Your task to perform on an android device: Go to notification settings Image 0: 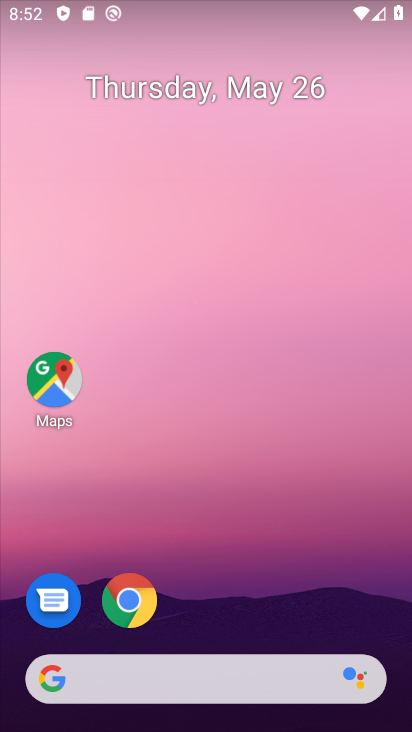
Step 0: drag from (196, 632) to (285, 13)
Your task to perform on an android device: Go to notification settings Image 1: 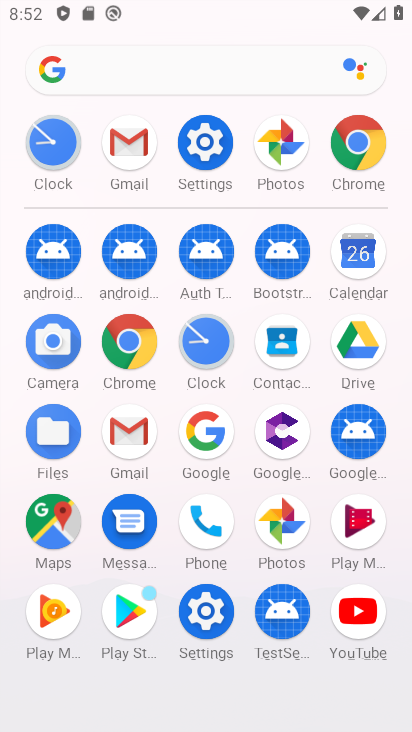
Step 1: click (199, 155)
Your task to perform on an android device: Go to notification settings Image 2: 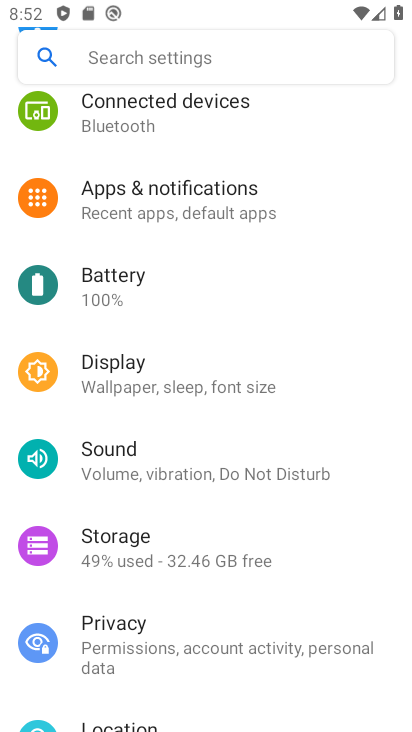
Step 2: click (187, 231)
Your task to perform on an android device: Go to notification settings Image 3: 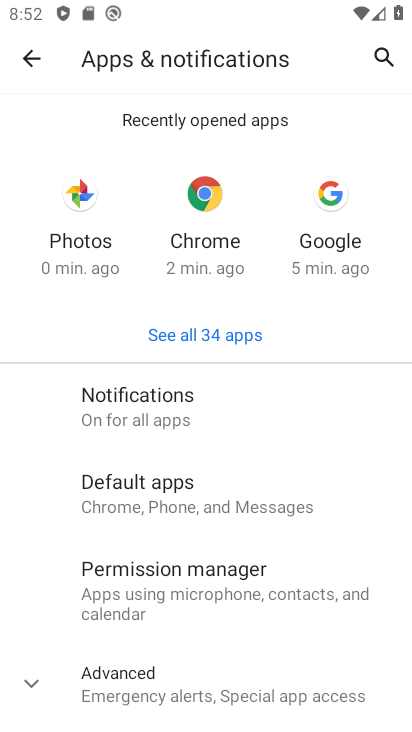
Step 3: task complete